Your task to perform on an android device: clear all cookies in the chrome app Image 0: 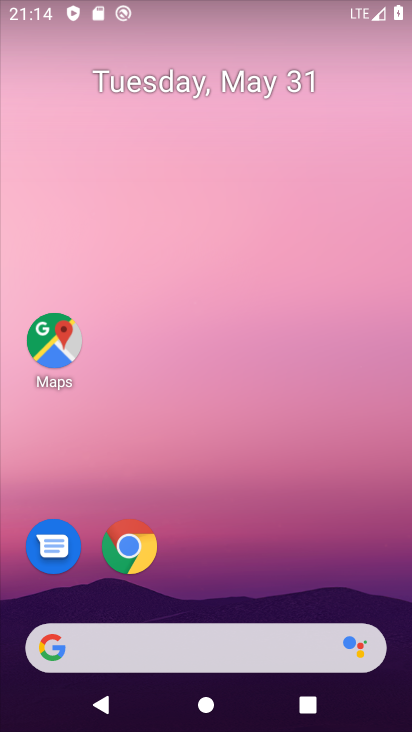
Step 0: click (141, 546)
Your task to perform on an android device: clear all cookies in the chrome app Image 1: 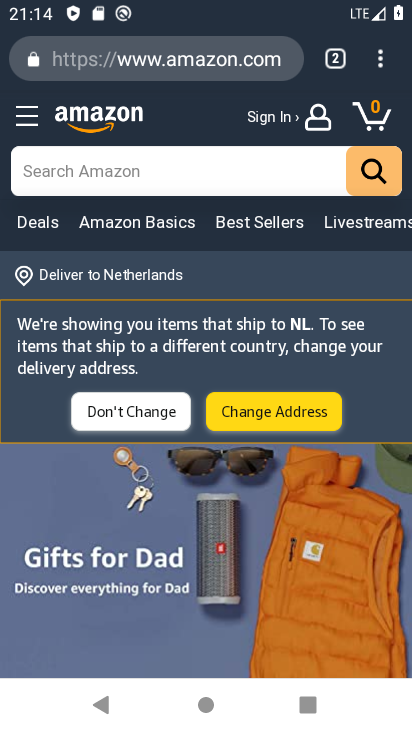
Step 1: click (380, 59)
Your task to perform on an android device: clear all cookies in the chrome app Image 2: 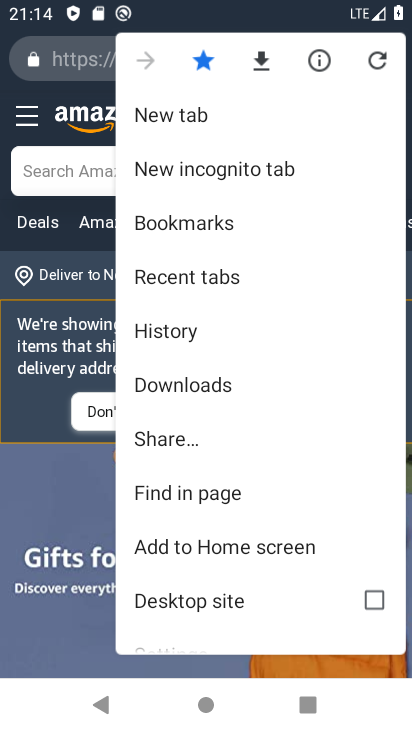
Step 2: click (186, 330)
Your task to perform on an android device: clear all cookies in the chrome app Image 3: 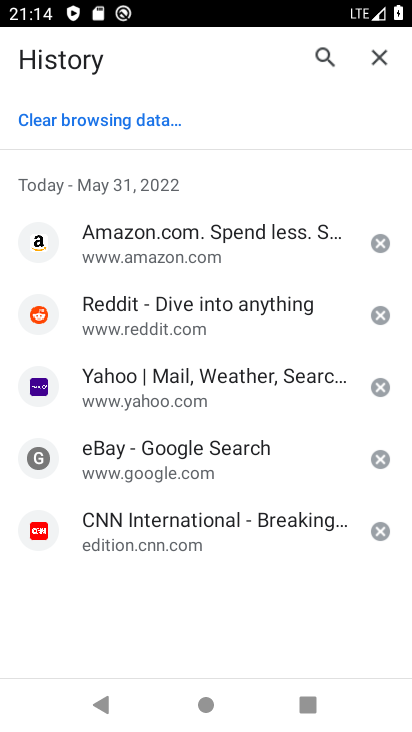
Step 3: click (95, 117)
Your task to perform on an android device: clear all cookies in the chrome app Image 4: 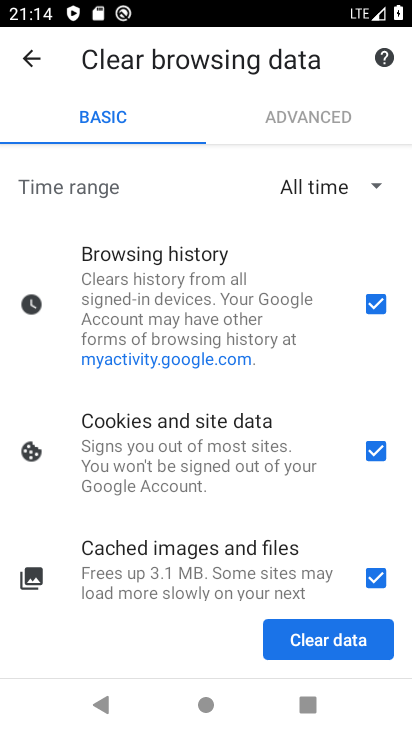
Step 4: click (366, 301)
Your task to perform on an android device: clear all cookies in the chrome app Image 5: 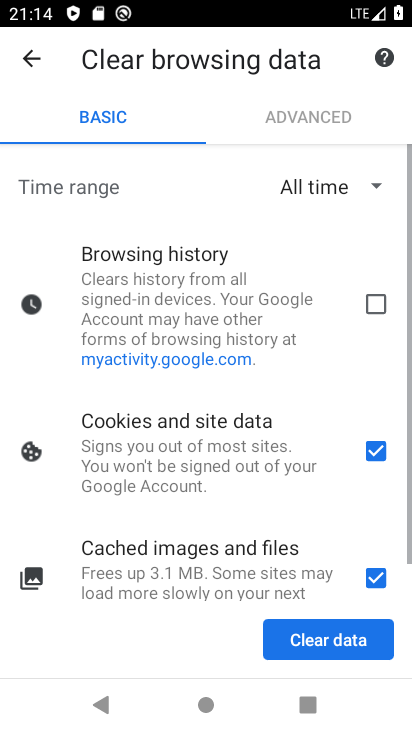
Step 5: click (364, 585)
Your task to perform on an android device: clear all cookies in the chrome app Image 6: 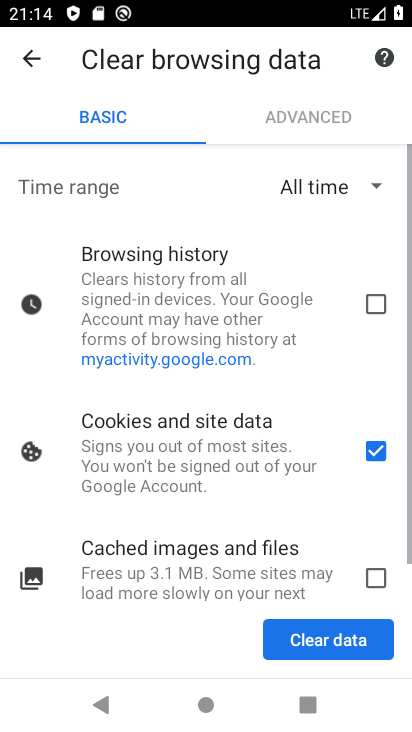
Step 6: click (339, 626)
Your task to perform on an android device: clear all cookies in the chrome app Image 7: 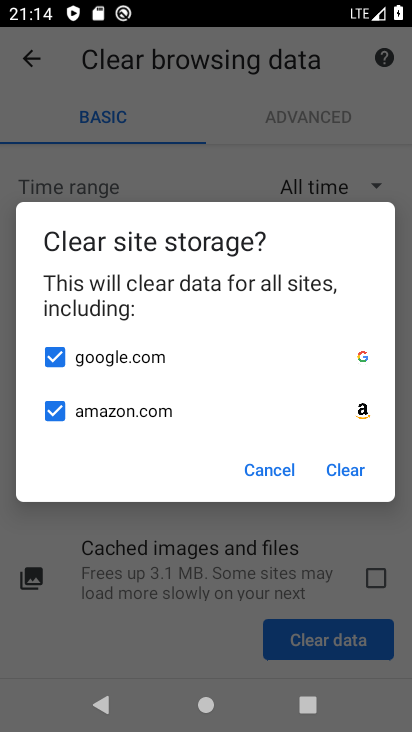
Step 7: click (345, 466)
Your task to perform on an android device: clear all cookies in the chrome app Image 8: 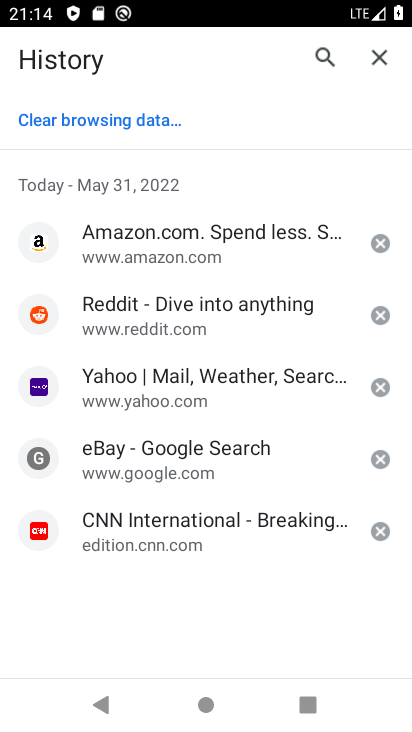
Step 8: task complete